Your task to perform on an android device: add a label to a message in the gmail app Image 0: 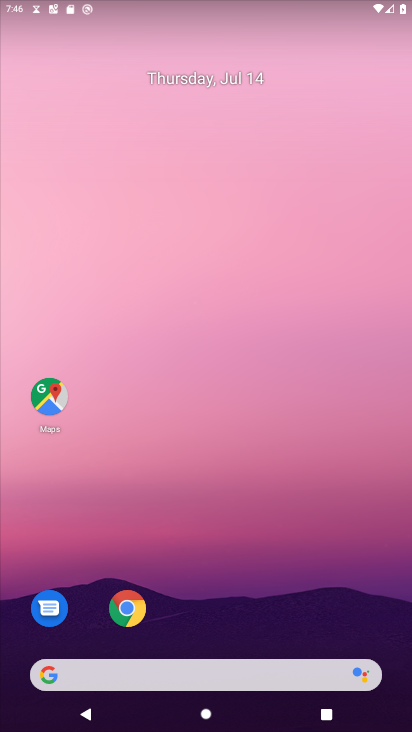
Step 0: drag from (227, 425) to (170, 27)
Your task to perform on an android device: add a label to a message in the gmail app Image 1: 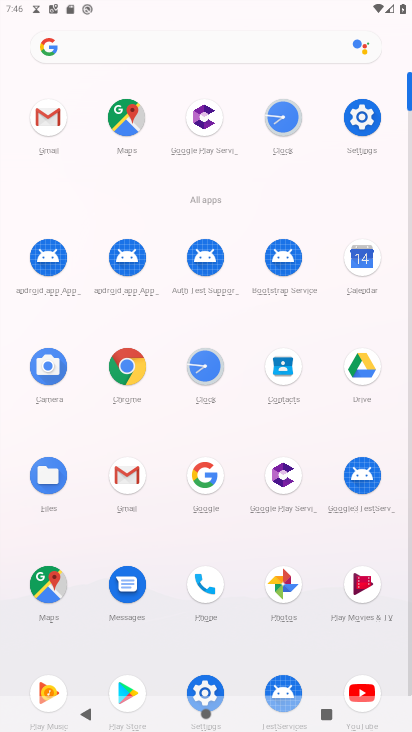
Step 1: click (56, 144)
Your task to perform on an android device: add a label to a message in the gmail app Image 2: 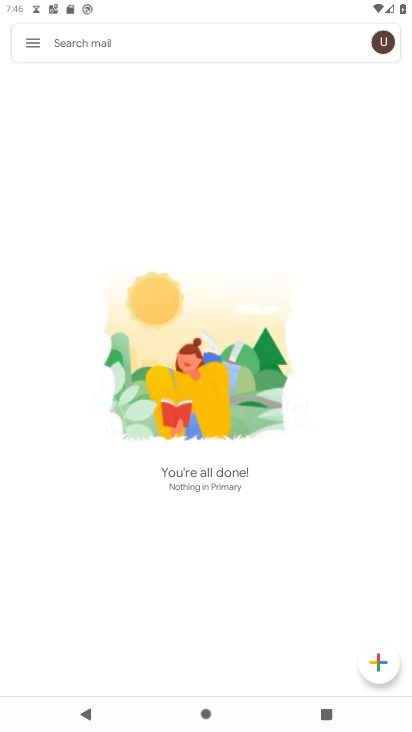
Step 2: click (30, 45)
Your task to perform on an android device: add a label to a message in the gmail app Image 3: 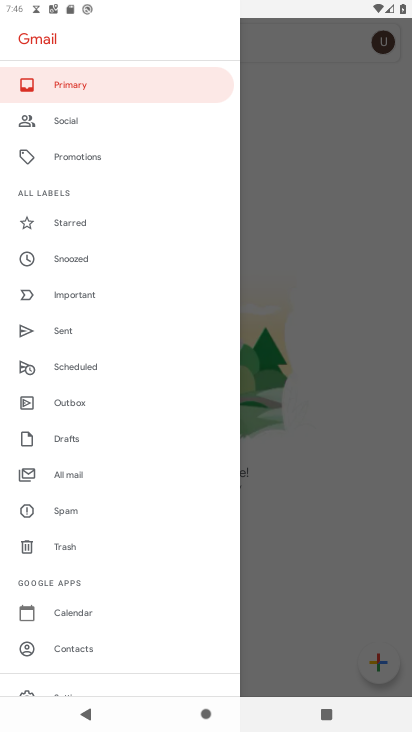
Step 3: click (67, 468)
Your task to perform on an android device: add a label to a message in the gmail app Image 4: 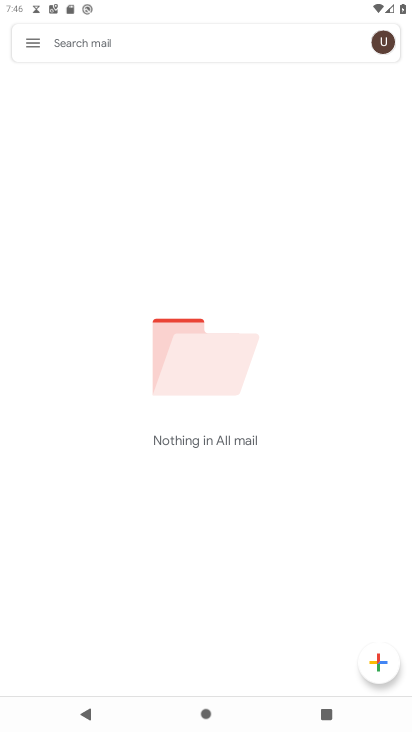
Step 4: task complete